Your task to perform on an android device: turn on bluetooth scan Image 0: 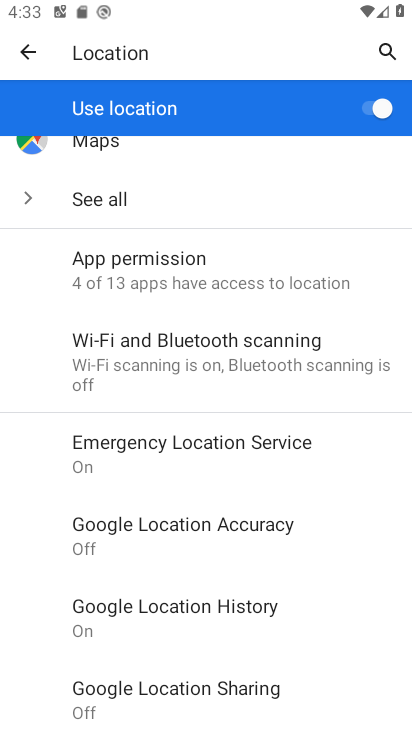
Step 0: press home button
Your task to perform on an android device: turn on bluetooth scan Image 1: 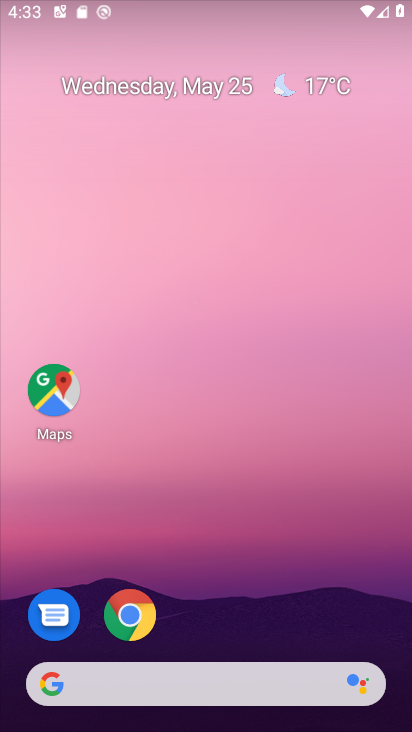
Step 1: drag from (275, 595) to (208, 2)
Your task to perform on an android device: turn on bluetooth scan Image 2: 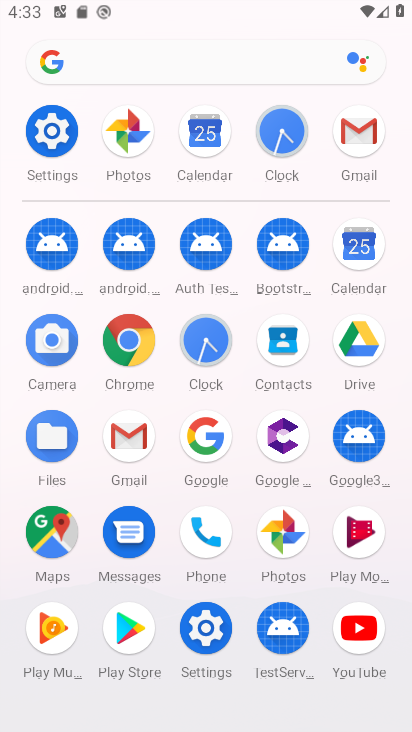
Step 2: click (59, 128)
Your task to perform on an android device: turn on bluetooth scan Image 3: 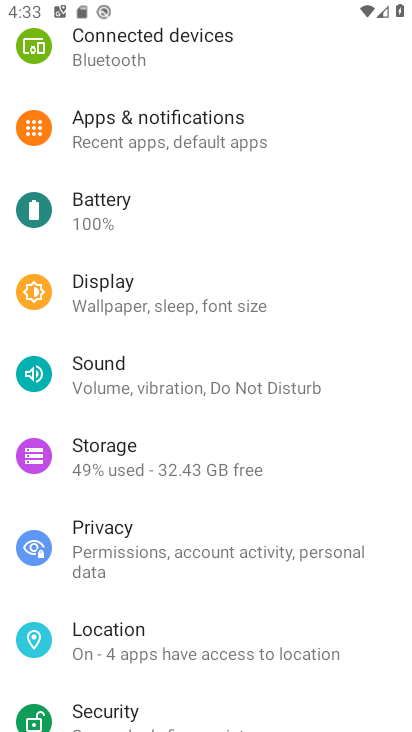
Step 3: click (179, 608)
Your task to perform on an android device: turn on bluetooth scan Image 4: 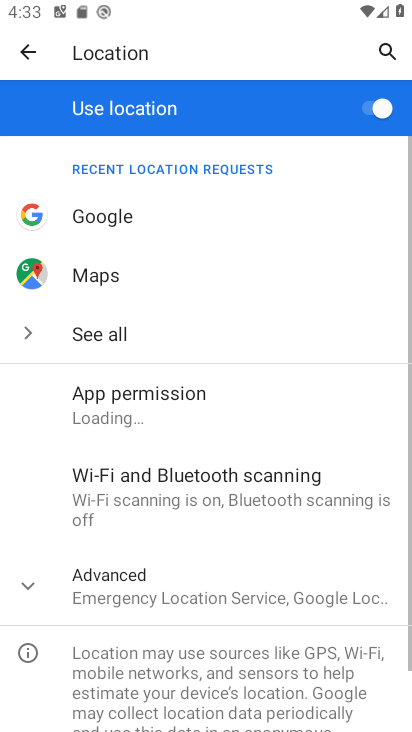
Step 4: click (247, 472)
Your task to perform on an android device: turn on bluetooth scan Image 5: 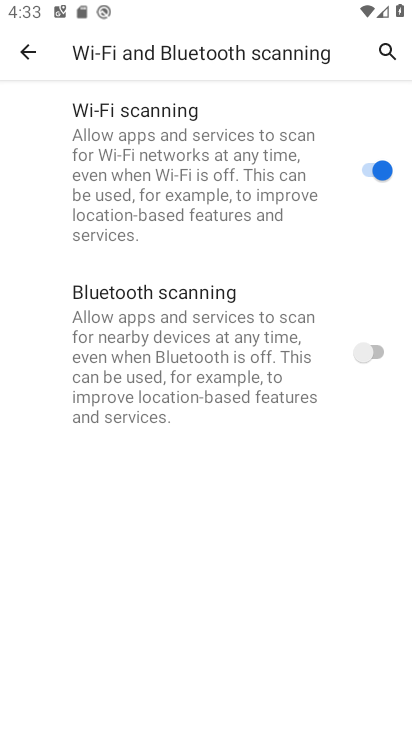
Step 5: click (369, 342)
Your task to perform on an android device: turn on bluetooth scan Image 6: 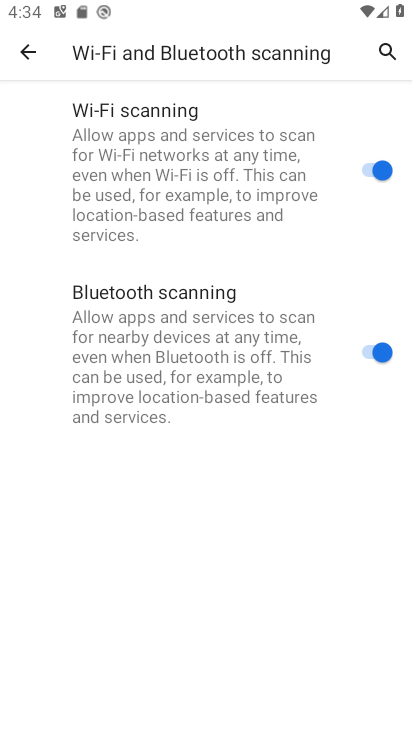
Step 6: task complete